Your task to perform on an android device: Open calendar and show me the fourth week of next month Image 0: 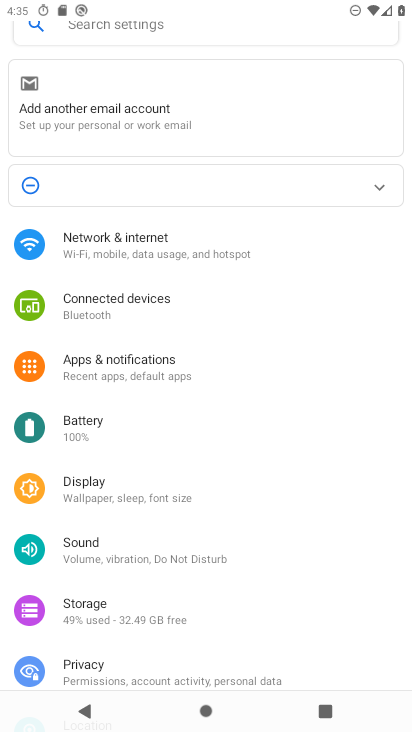
Step 0: press home button
Your task to perform on an android device: Open calendar and show me the fourth week of next month Image 1: 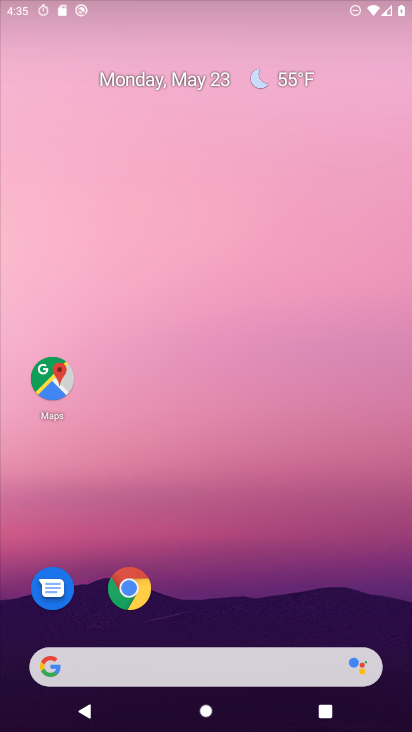
Step 1: click (241, 67)
Your task to perform on an android device: Open calendar and show me the fourth week of next month Image 2: 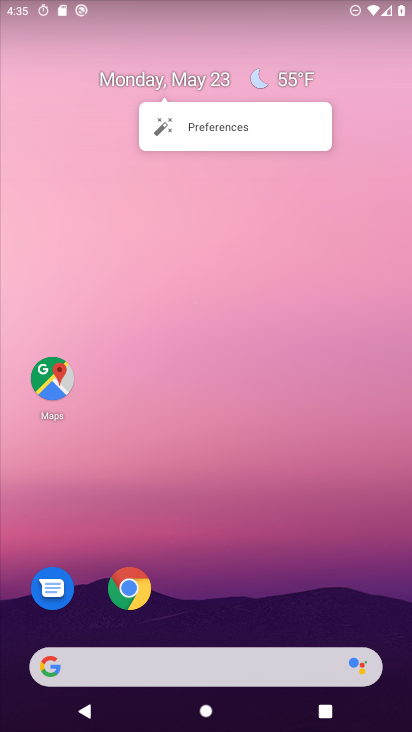
Step 2: drag from (214, 589) to (222, 78)
Your task to perform on an android device: Open calendar and show me the fourth week of next month Image 3: 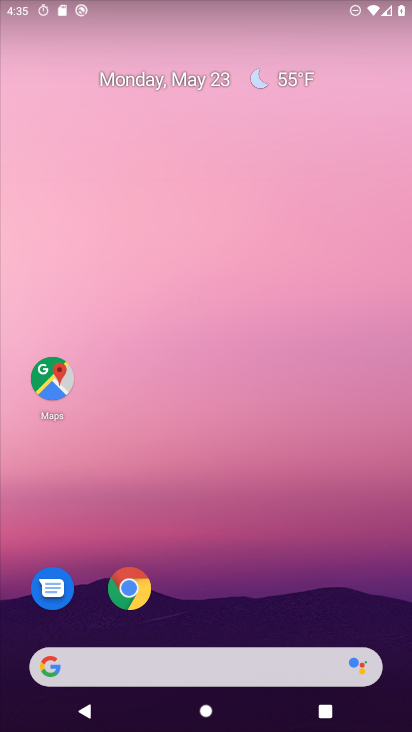
Step 3: drag from (257, 532) to (230, 106)
Your task to perform on an android device: Open calendar and show me the fourth week of next month Image 4: 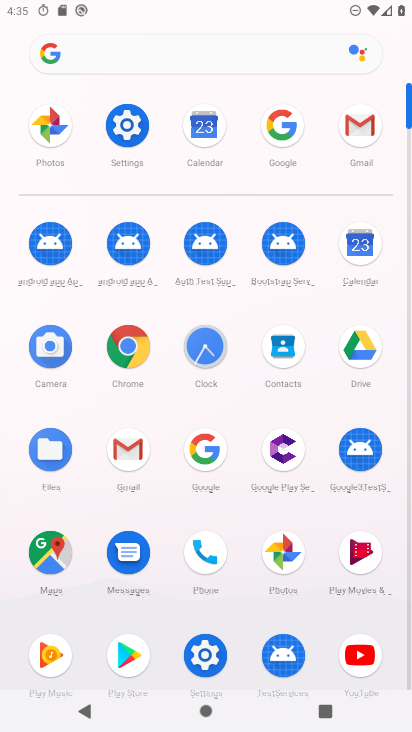
Step 4: click (352, 249)
Your task to perform on an android device: Open calendar and show me the fourth week of next month Image 5: 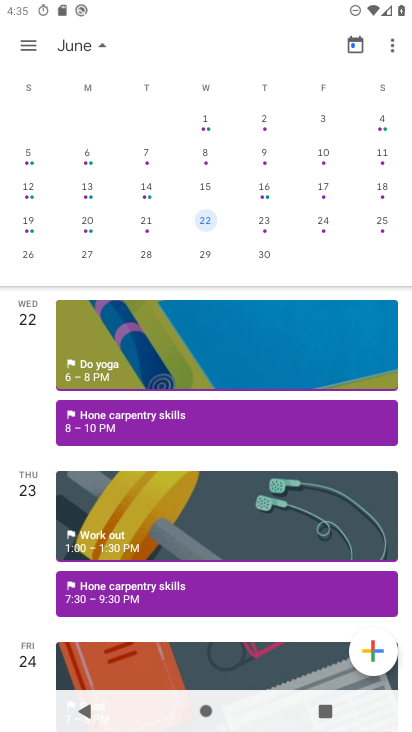
Step 5: click (262, 220)
Your task to perform on an android device: Open calendar and show me the fourth week of next month Image 6: 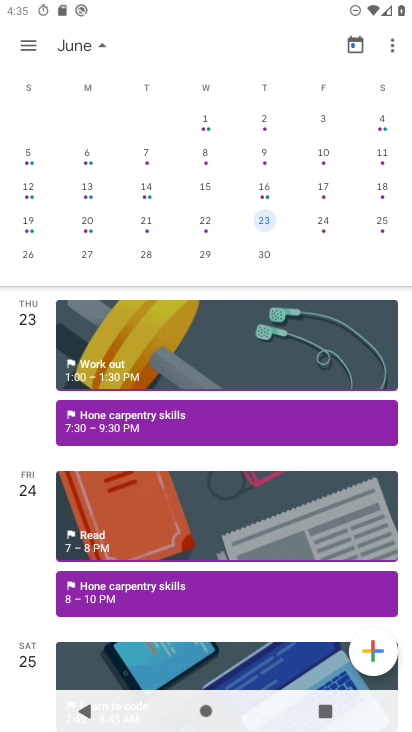
Step 6: task complete